Your task to perform on an android device: open app "Facebook Lite" (install if not already installed) Image 0: 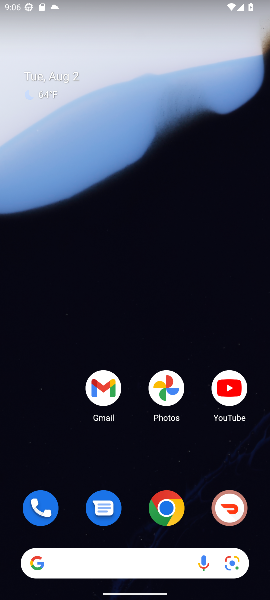
Step 0: click (181, 24)
Your task to perform on an android device: open app "Facebook Lite" (install if not already installed) Image 1: 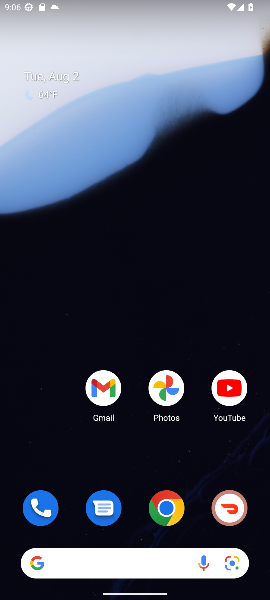
Step 1: drag from (170, 486) to (201, 161)
Your task to perform on an android device: open app "Facebook Lite" (install if not already installed) Image 2: 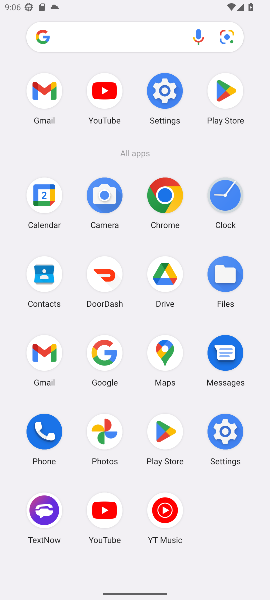
Step 2: click (222, 115)
Your task to perform on an android device: open app "Facebook Lite" (install if not already installed) Image 3: 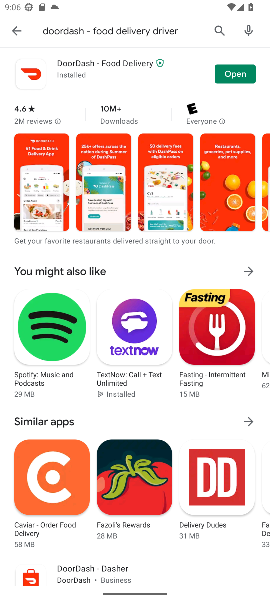
Step 3: click (20, 33)
Your task to perform on an android device: open app "Facebook Lite" (install if not already installed) Image 4: 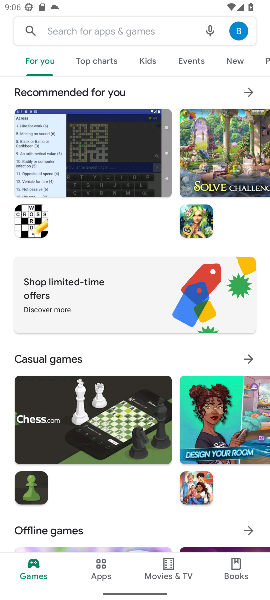
Step 4: click (76, 26)
Your task to perform on an android device: open app "Facebook Lite" (install if not already installed) Image 5: 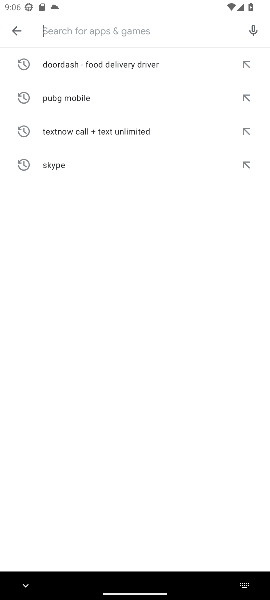
Step 5: type "Facebook Lite"
Your task to perform on an android device: open app "Facebook Lite" (install if not already installed) Image 6: 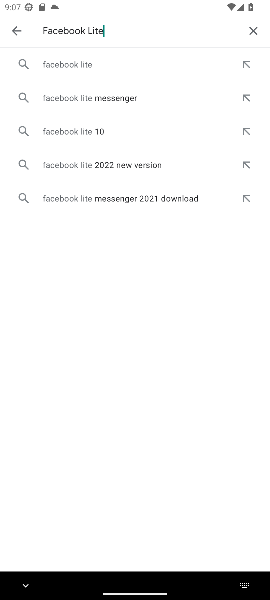
Step 6: click (92, 63)
Your task to perform on an android device: open app "Facebook Lite" (install if not already installed) Image 7: 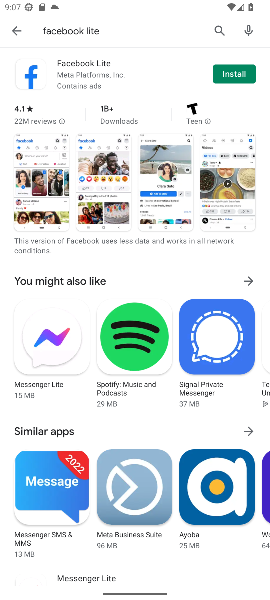
Step 7: click (227, 78)
Your task to perform on an android device: open app "Facebook Lite" (install if not already installed) Image 8: 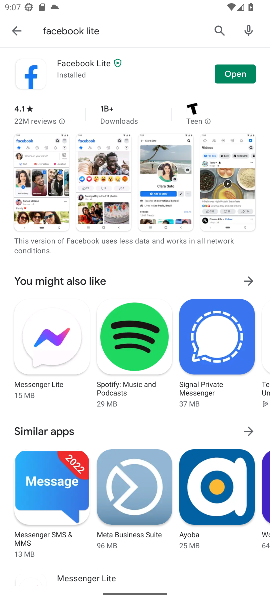
Step 8: click (235, 69)
Your task to perform on an android device: open app "Facebook Lite" (install if not already installed) Image 9: 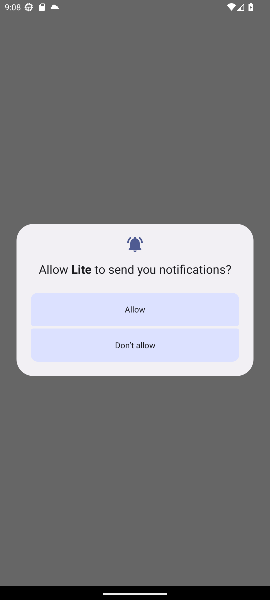
Step 9: click (186, 306)
Your task to perform on an android device: open app "Facebook Lite" (install if not already installed) Image 10: 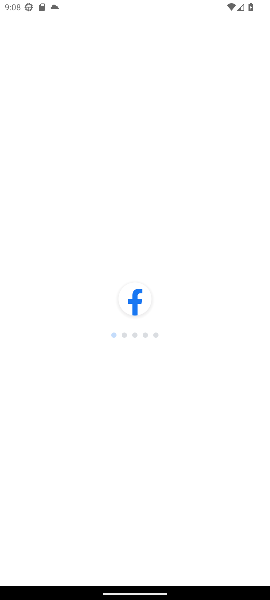
Step 10: task complete